Your task to perform on an android device: What's the news in Japan? Image 0: 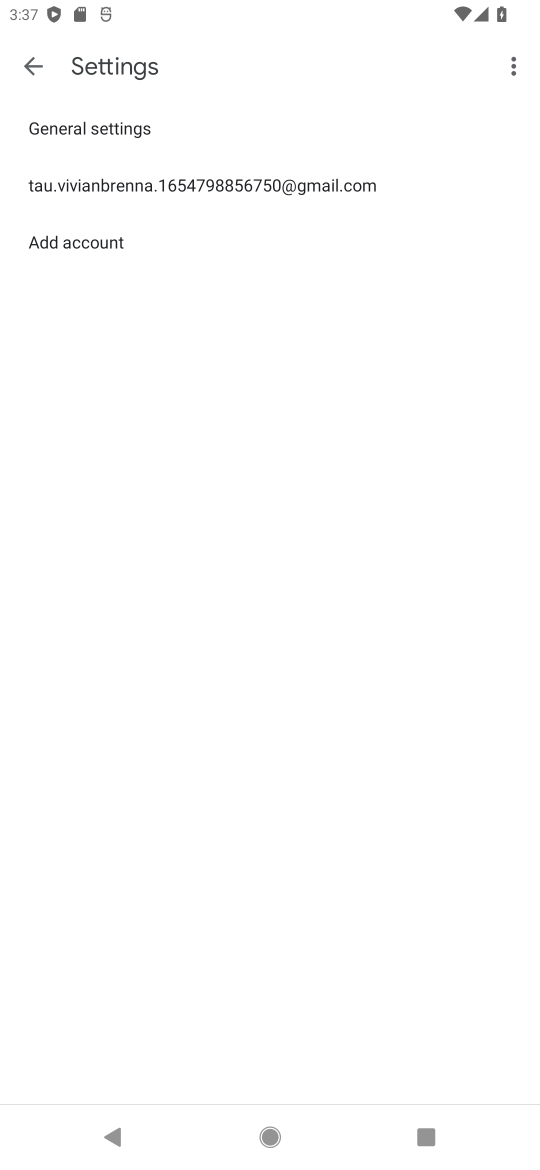
Step 0: press home button
Your task to perform on an android device: What's the news in Japan? Image 1: 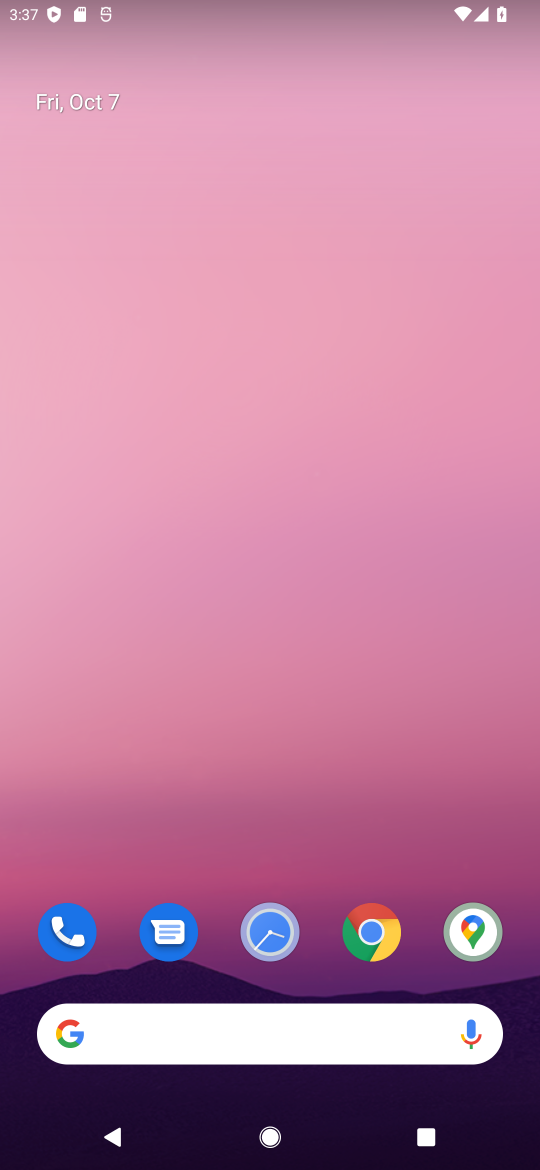
Step 1: click (366, 943)
Your task to perform on an android device: What's the news in Japan? Image 2: 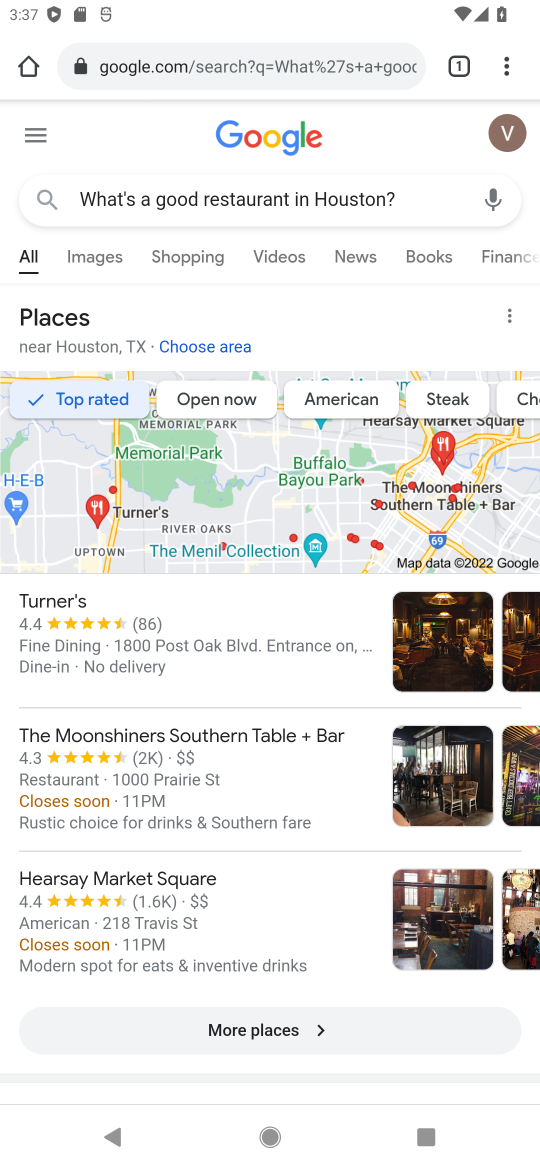
Step 2: click (349, 67)
Your task to perform on an android device: What's the news in Japan? Image 3: 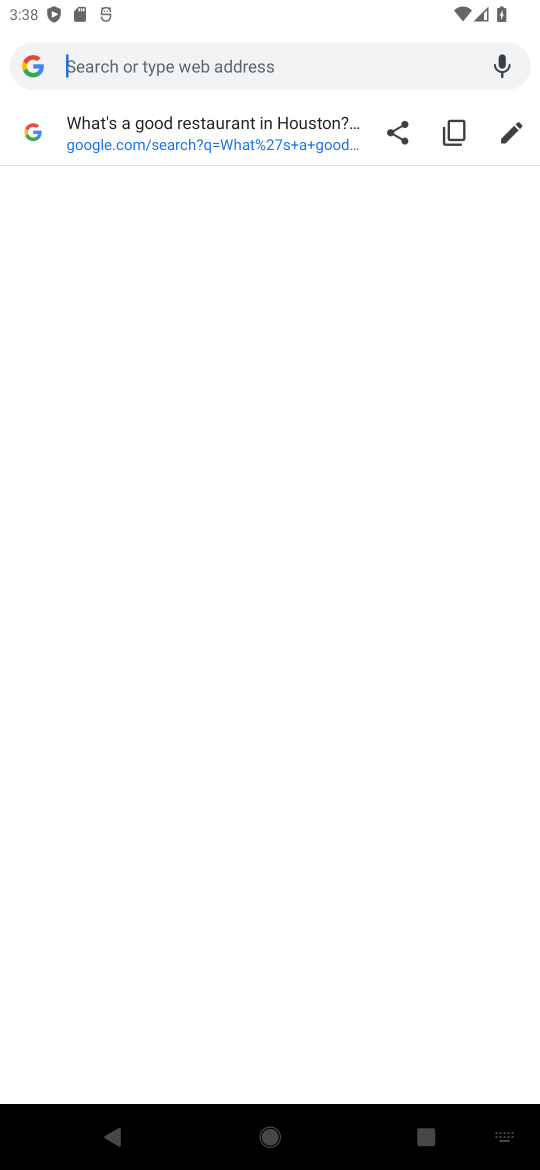
Step 3: type "What's the news in Japan?"
Your task to perform on an android device: What's the news in Japan? Image 4: 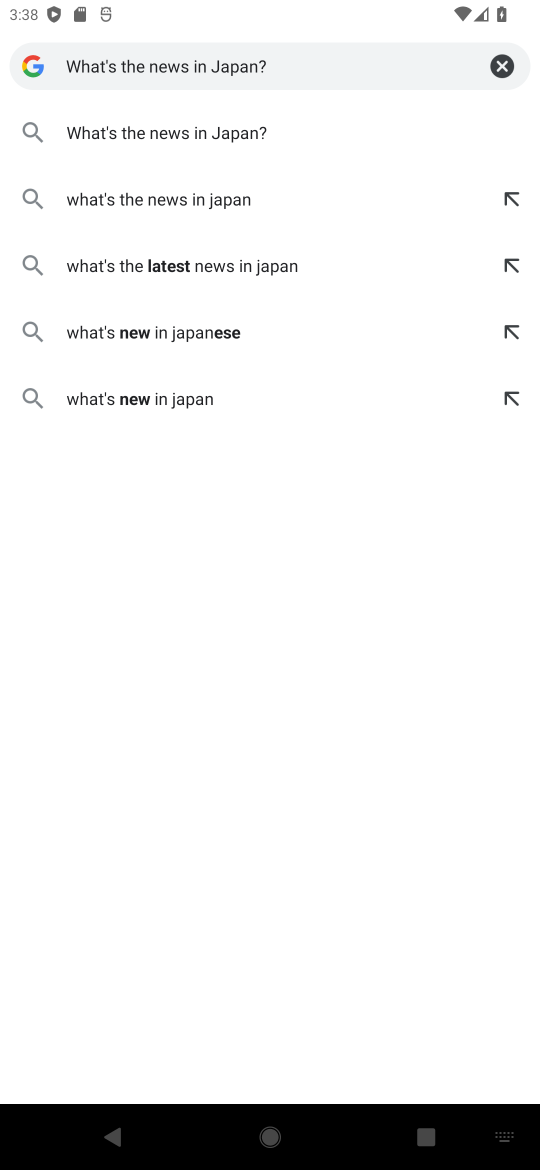
Step 4: click (325, 111)
Your task to perform on an android device: What's the news in Japan? Image 5: 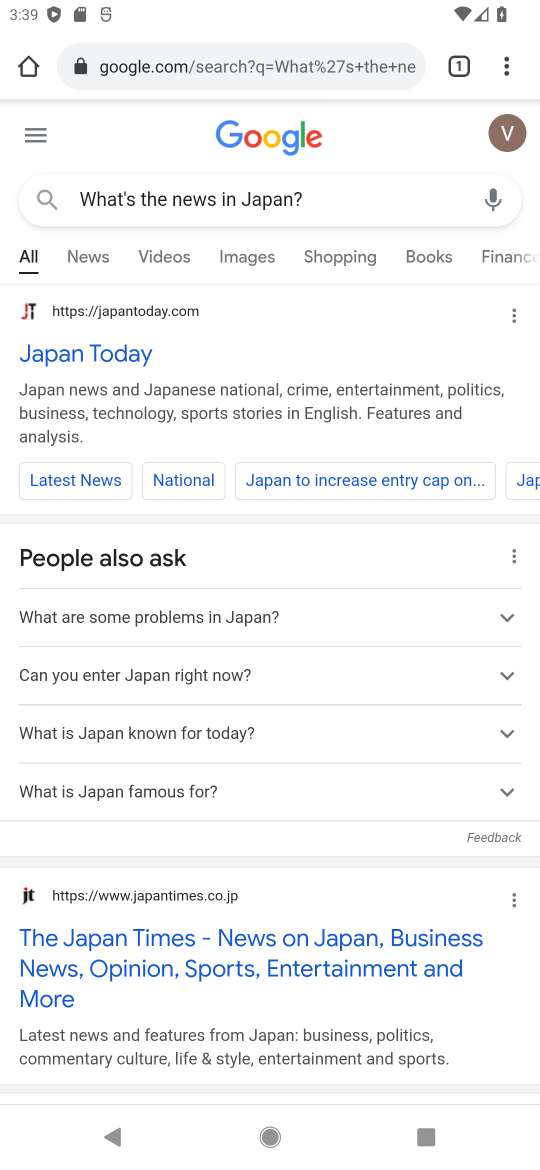
Step 5: task complete